Your task to perform on an android device: open a bookmark in the chrome app Image 0: 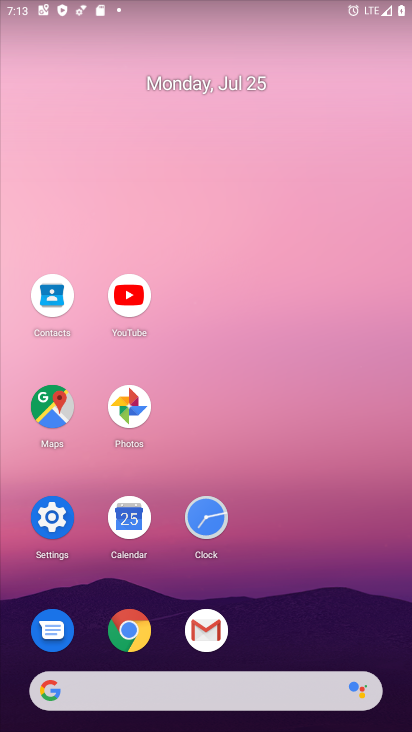
Step 0: click (126, 627)
Your task to perform on an android device: open a bookmark in the chrome app Image 1: 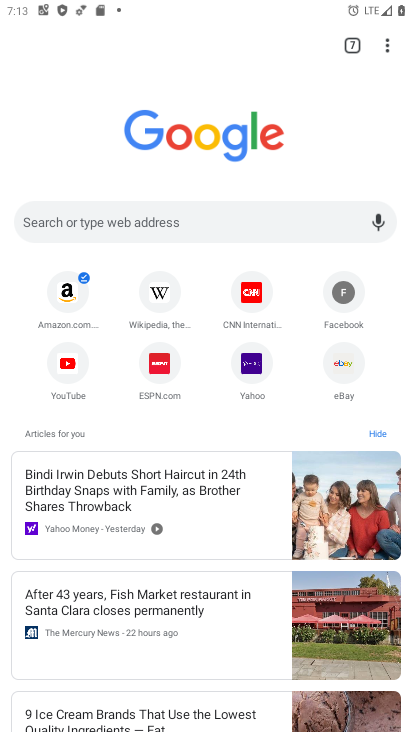
Step 1: click (388, 39)
Your task to perform on an android device: open a bookmark in the chrome app Image 2: 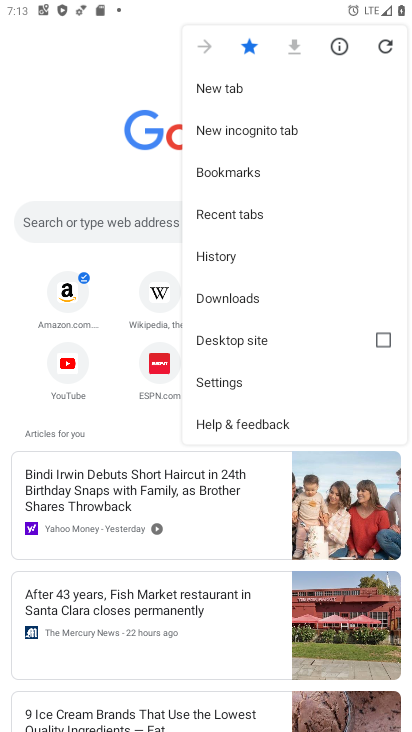
Step 2: click (229, 173)
Your task to perform on an android device: open a bookmark in the chrome app Image 3: 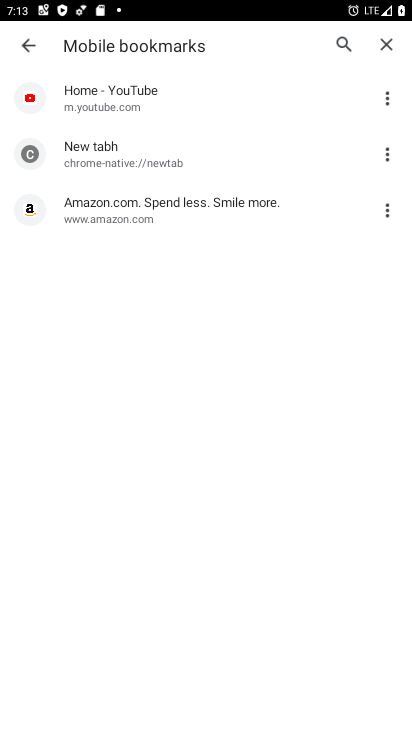
Step 3: task complete